Your task to perform on an android device: Go to Android settings Image 0: 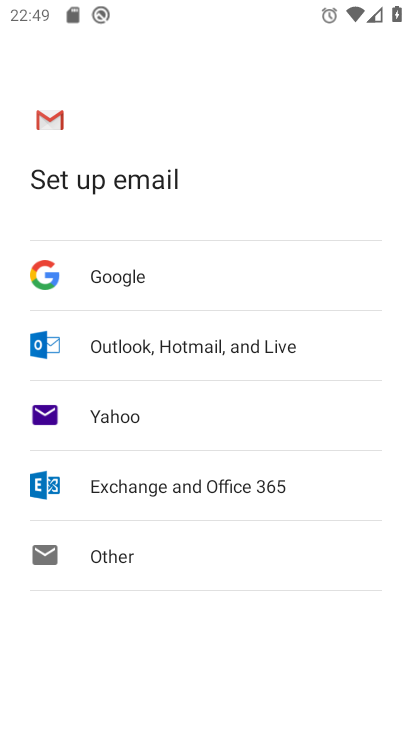
Step 0: press home button
Your task to perform on an android device: Go to Android settings Image 1: 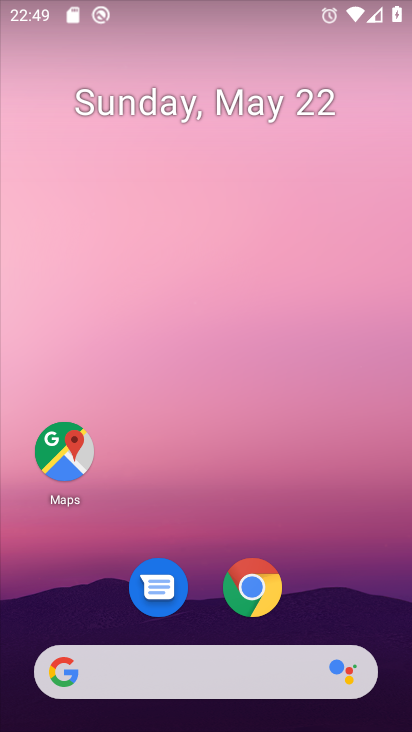
Step 1: drag from (289, 559) to (242, 69)
Your task to perform on an android device: Go to Android settings Image 2: 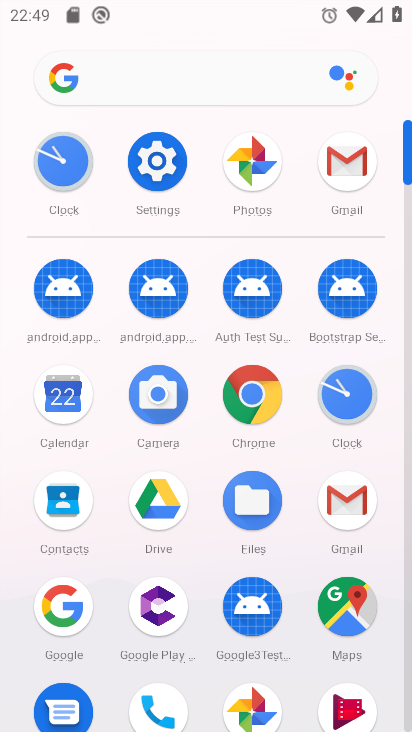
Step 2: click (161, 173)
Your task to perform on an android device: Go to Android settings Image 3: 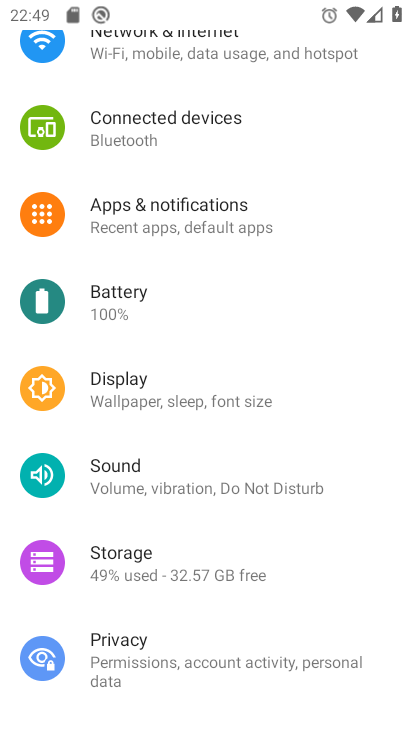
Step 3: drag from (266, 620) to (305, 45)
Your task to perform on an android device: Go to Android settings Image 4: 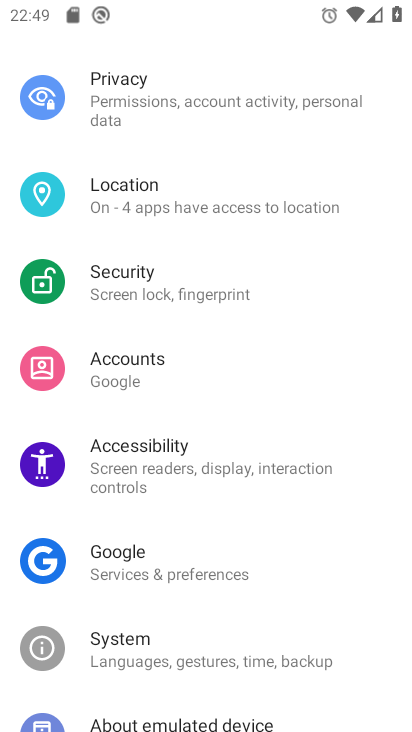
Step 4: click (205, 723)
Your task to perform on an android device: Go to Android settings Image 5: 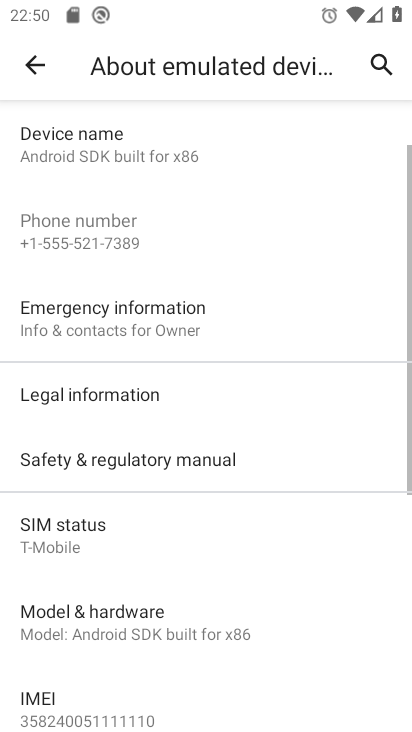
Step 5: task complete